Your task to perform on an android device: Search for Italian restaurants on Maps Image 0: 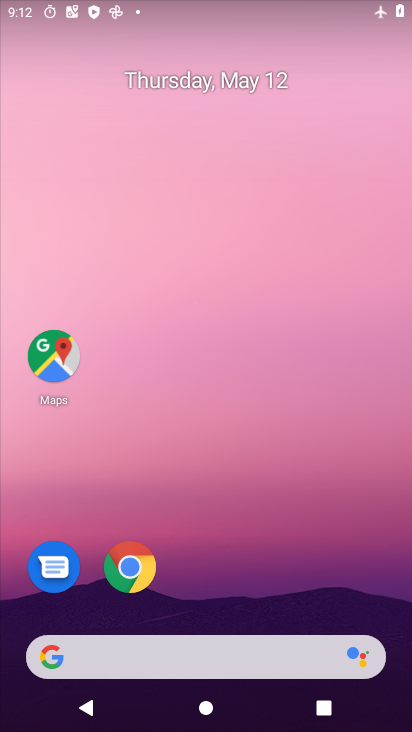
Step 0: drag from (238, 613) to (278, 223)
Your task to perform on an android device: Search for Italian restaurants on Maps Image 1: 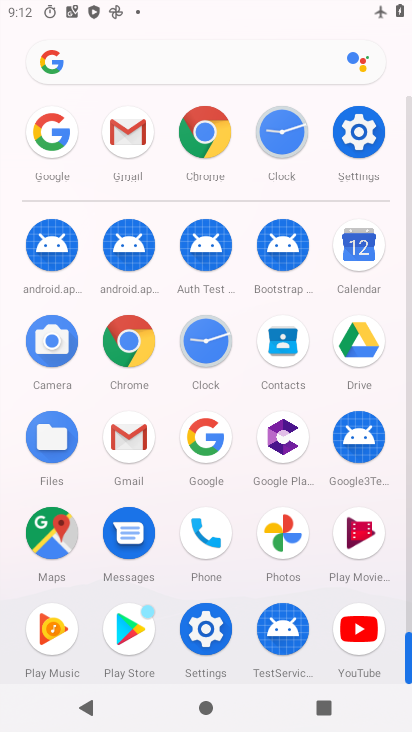
Step 1: click (58, 549)
Your task to perform on an android device: Search for Italian restaurants on Maps Image 2: 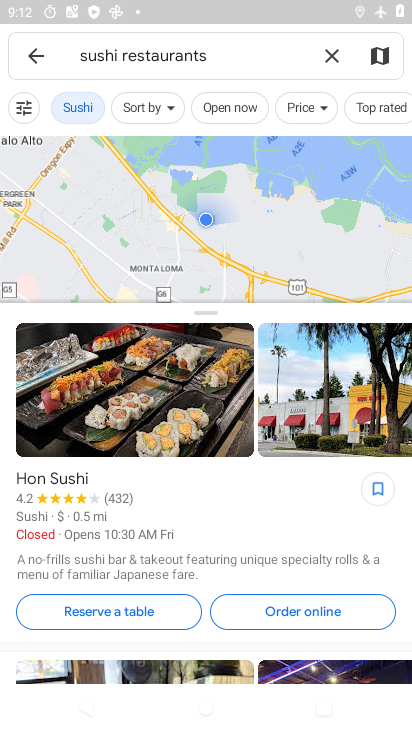
Step 2: click (332, 59)
Your task to perform on an android device: Search for Italian restaurants on Maps Image 3: 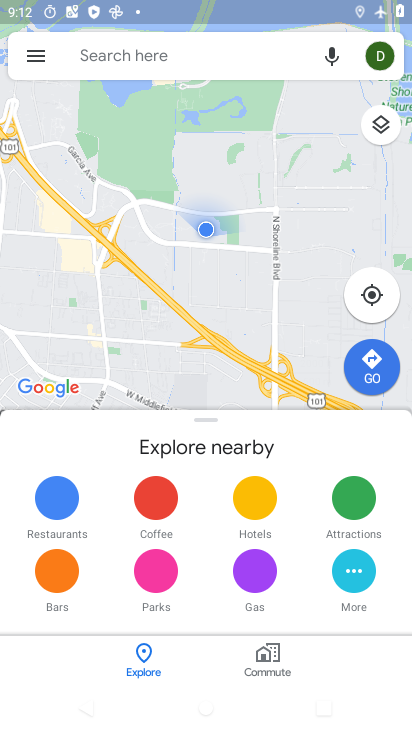
Step 3: click (233, 43)
Your task to perform on an android device: Search for Italian restaurants on Maps Image 4: 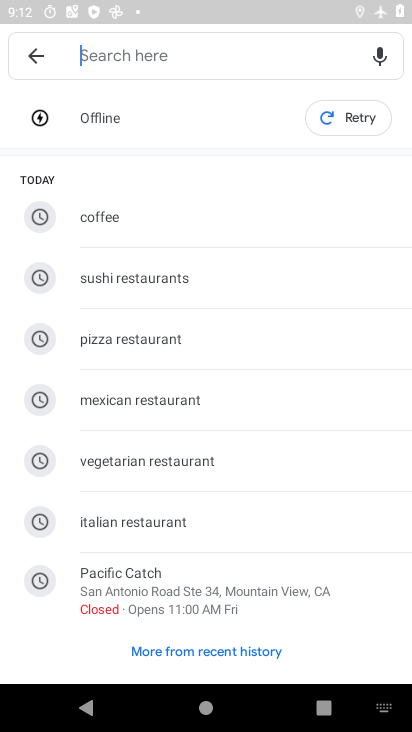
Step 4: click (153, 519)
Your task to perform on an android device: Search for Italian restaurants on Maps Image 5: 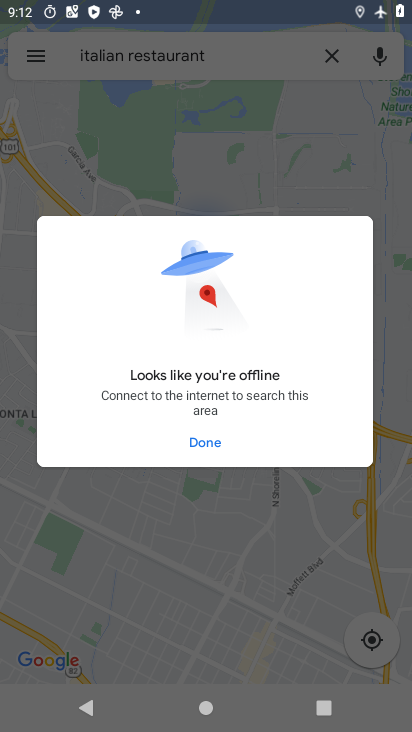
Step 5: task complete